Your task to perform on an android device: toggle data saver in the chrome app Image 0: 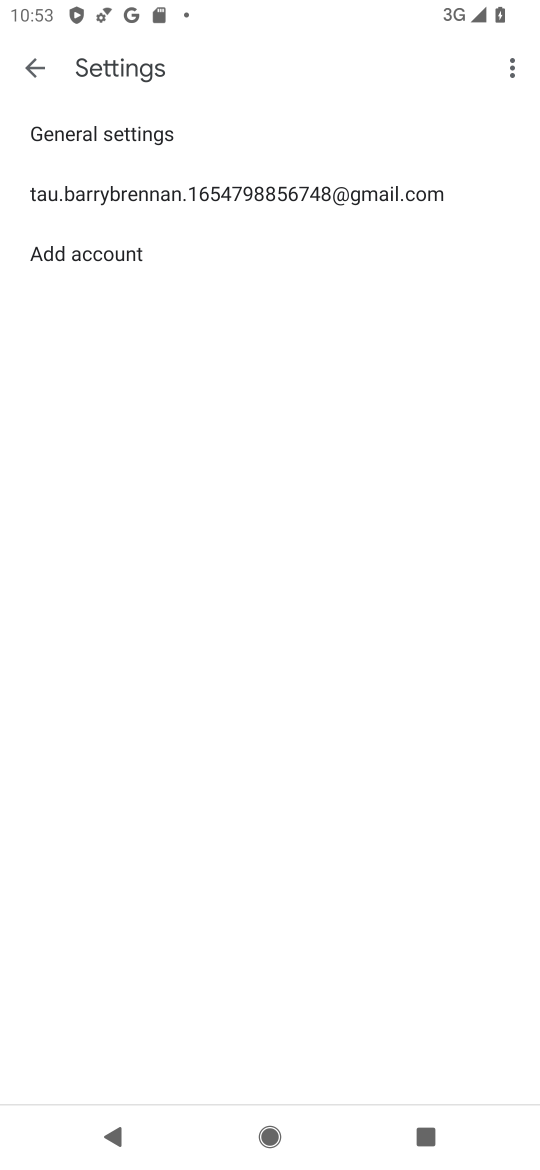
Step 0: press home button
Your task to perform on an android device: toggle data saver in the chrome app Image 1: 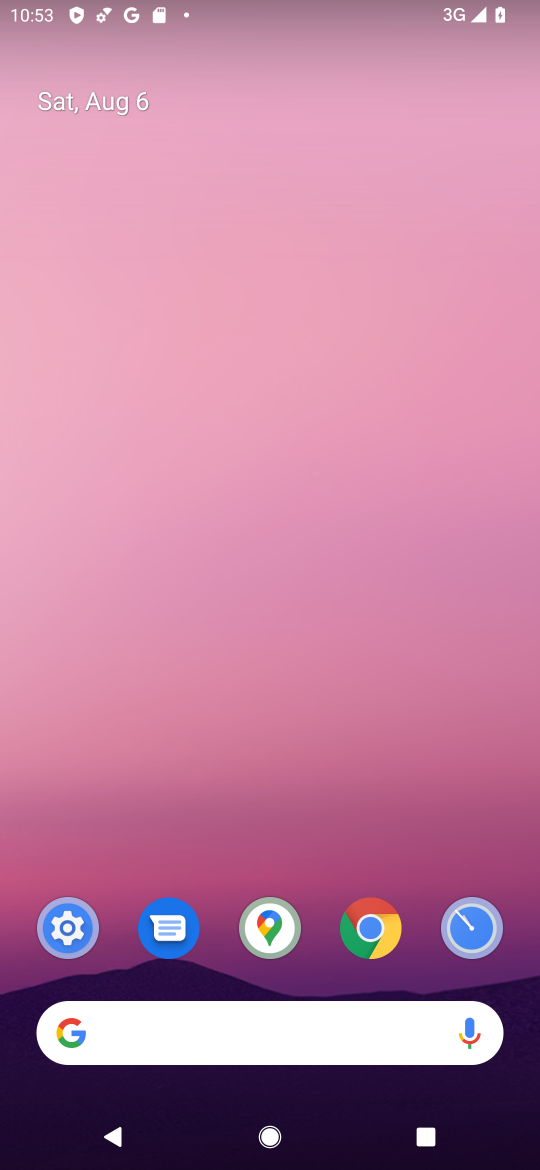
Step 1: click (359, 927)
Your task to perform on an android device: toggle data saver in the chrome app Image 2: 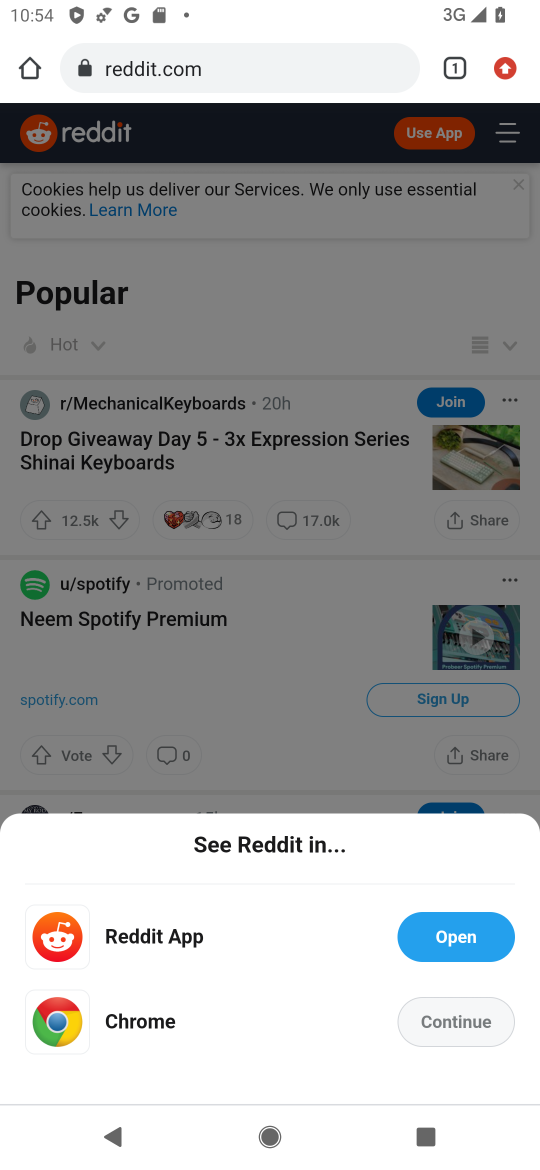
Step 2: click (500, 76)
Your task to perform on an android device: toggle data saver in the chrome app Image 3: 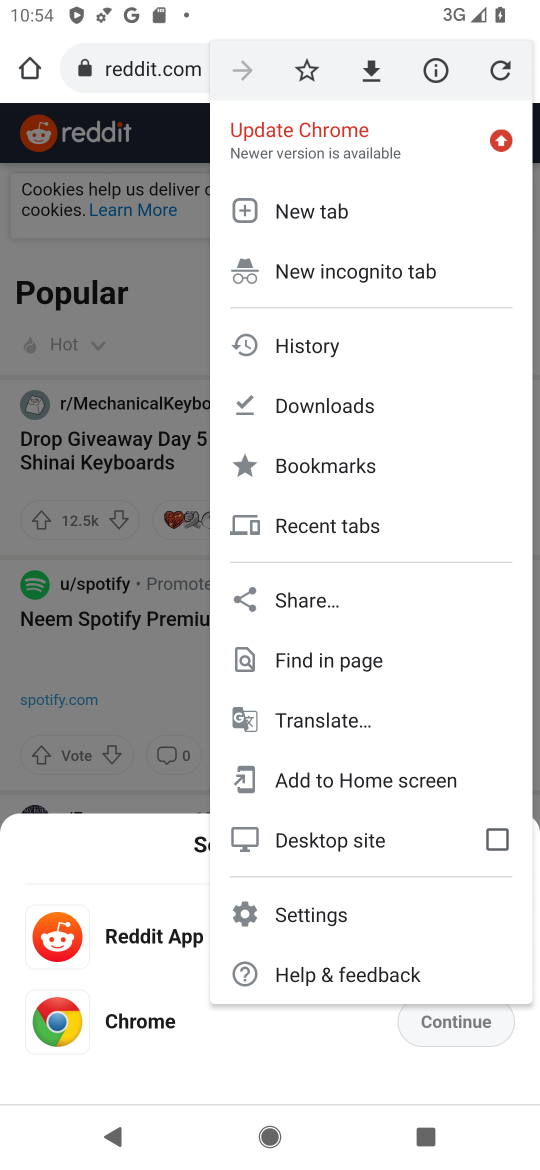
Step 3: click (326, 912)
Your task to perform on an android device: toggle data saver in the chrome app Image 4: 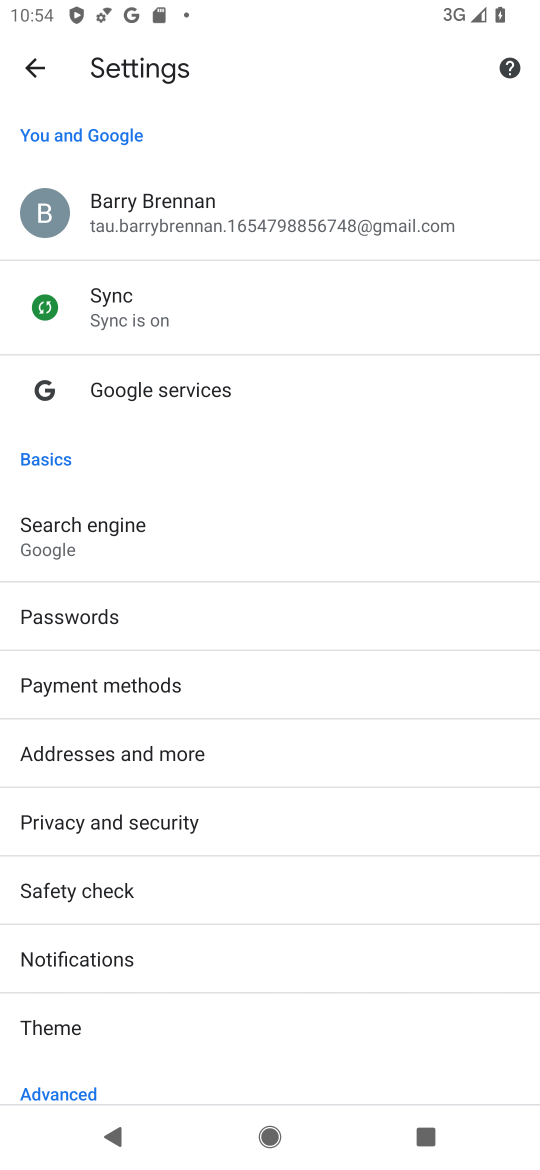
Step 4: task complete